Your task to perform on an android device: change keyboard looks Image 0: 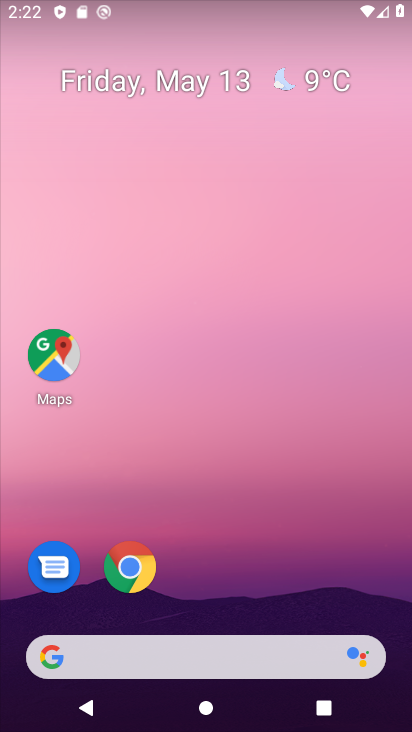
Step 0: drag from (322, 608) to (288, 17)
Your task to perform on an android device: change keyboard looks Image 1: 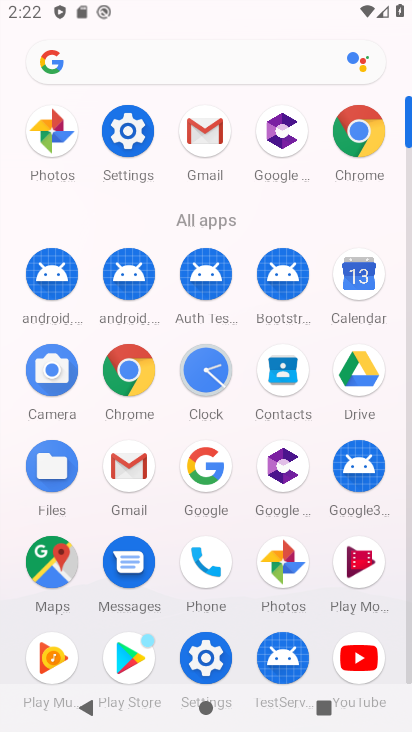
Step 1: click (120, 143)
Your task to perform on an android device: change keyboard looks Image 2: 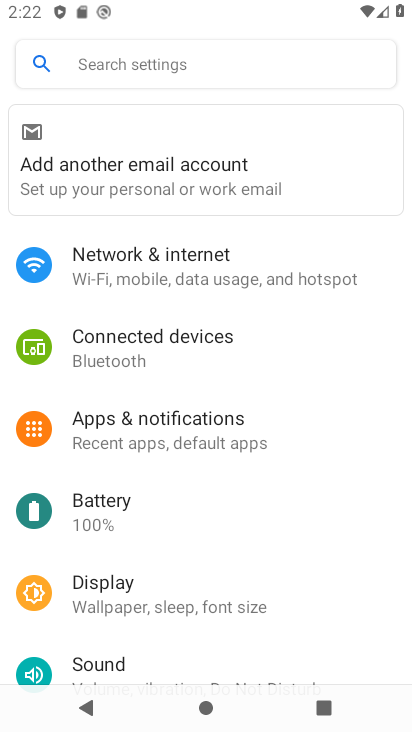
Step 2: drag from (345, 577) to (344, 222)
Your task to perform on an android device: change keyboard looks Image 3: 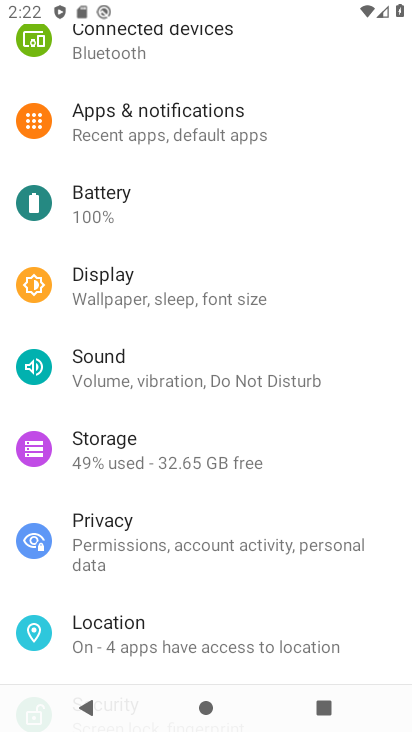
Step 3: drag from (366, 547) to (330, 149)
Your task to perform on an android device: change keyboard looks Image 4: 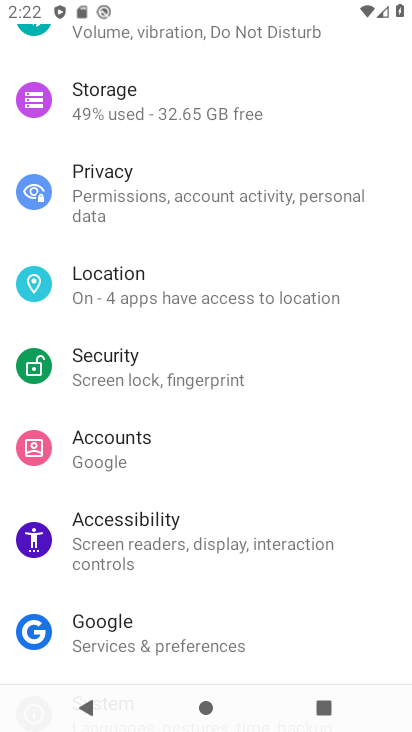
Step 4: drag from (316, 580) to (340, 151)
Your task to perform on an android device: change keyboard looks Image 5: 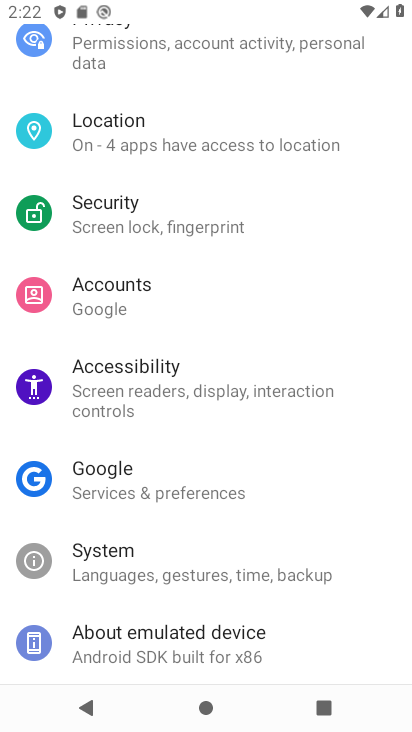
Step 5: click (114, 557)
Your task to perform on an android device: change keyboard looks Image 6: 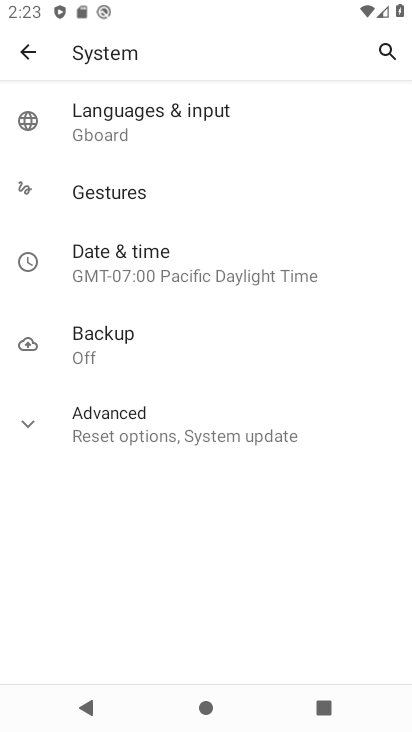
Step 6: click (115, 130)
Your task to perform on an android device: change keyboard looks Image 7: 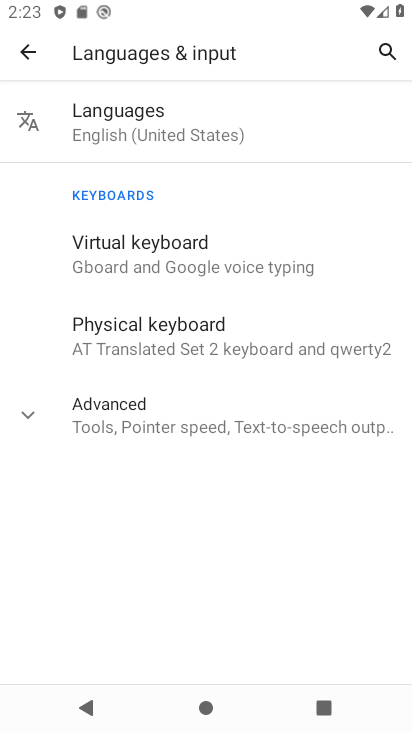
Step 7: click (147, 252)
Your task to perform on an android device: change keyboard looks Image 8: 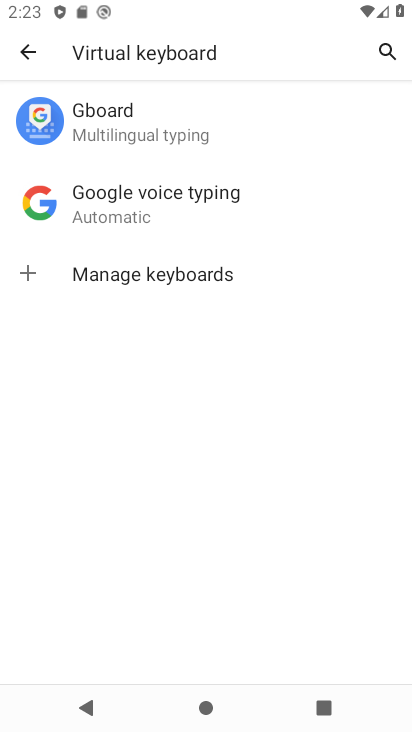
Step 8: click (123, 139)
Your task to perform on an android device: change keyboard looks Image 9: 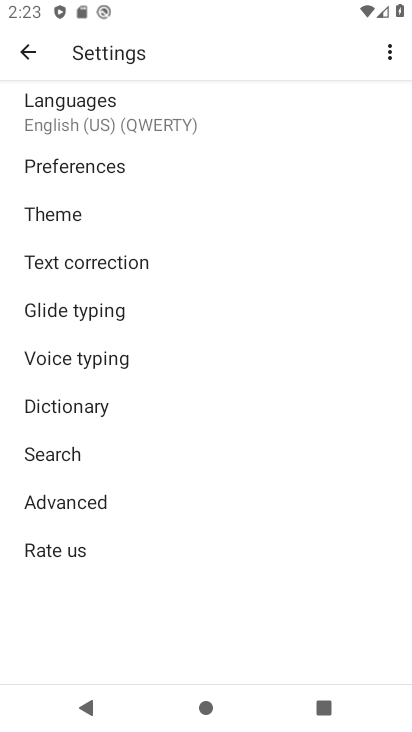
Step 9: click (61, 212)
Your task to perform on an android device: change keyboard looks Image 10: 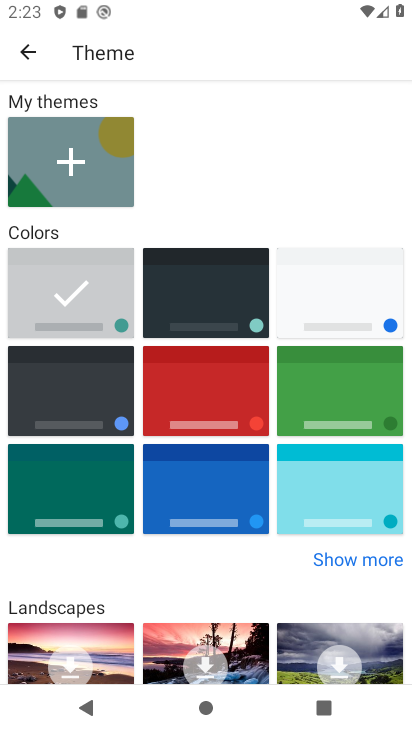
Step 10: click (198, 391)
Your task to perform on an android device: change keyboard looks Image 11: 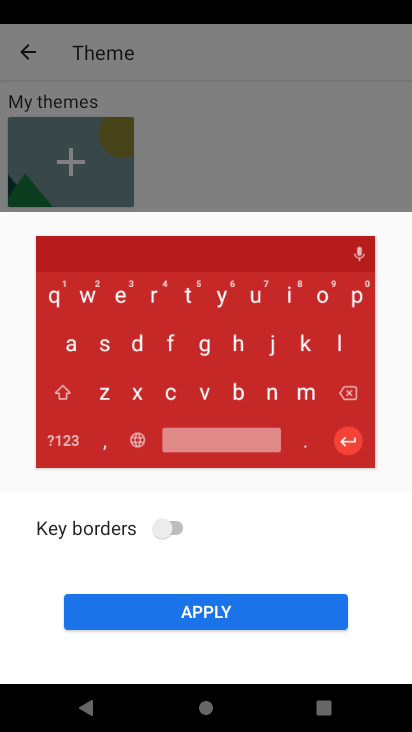
Step 11: click (168, 529)
Your task to perform on an android device: change keyboard looks Image 12: 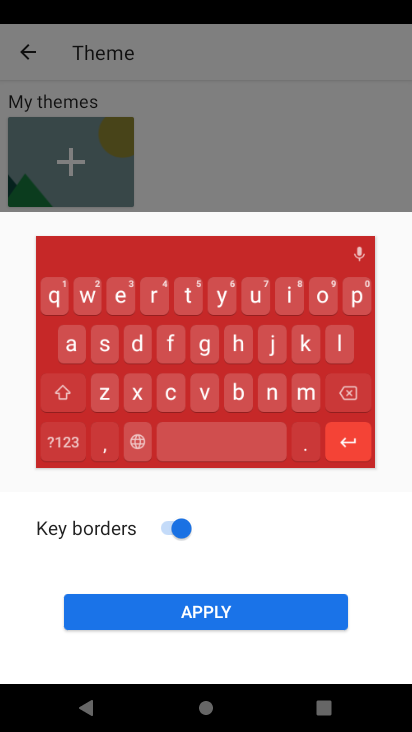
Step 12: click (194, 604)
Your task to perform on an android device: change keyboard looks Image 13: 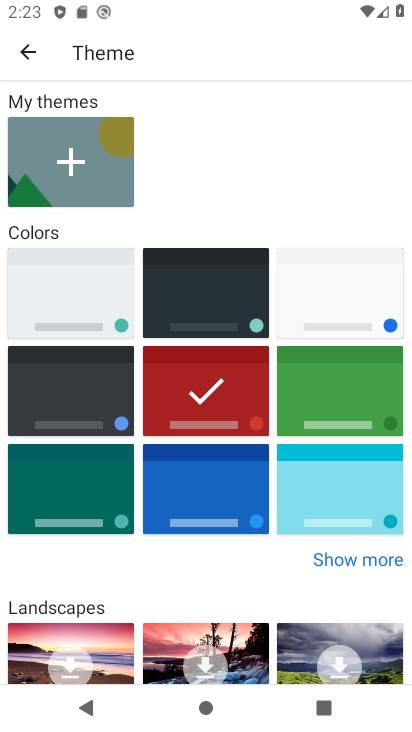
Step 13: task complete